Your task to perform on an android device: Go to display settings Image 0: 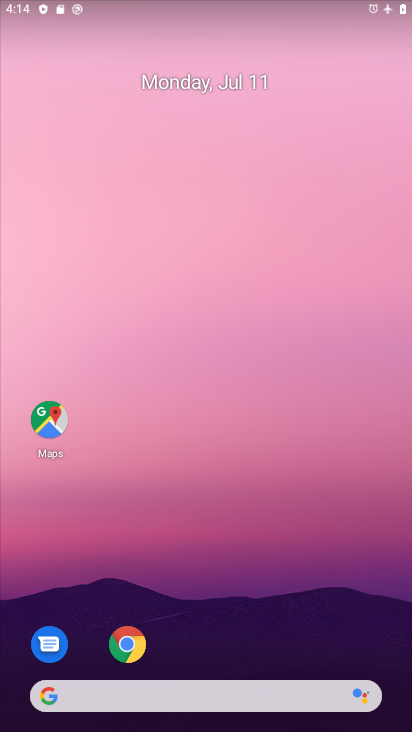
Step 0: drag from (293, 647) to (251, 28)
Your task to perform on an android device: Go to display settings Image 1: 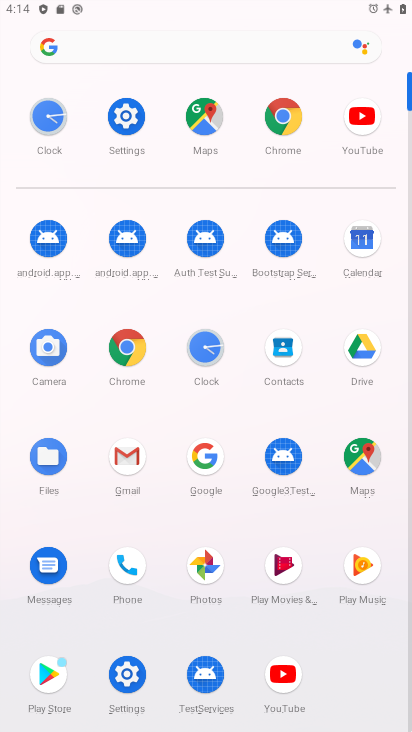
Step 1: click (141, 129)
Your task to perform on an android device: Go to display settings Image 2: 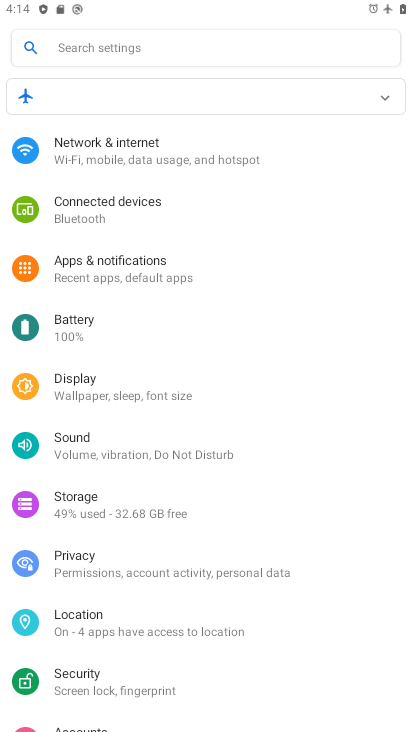
Step 2: click (119, 385)
Your task to perform on an android device: Go to display settings Image 3: 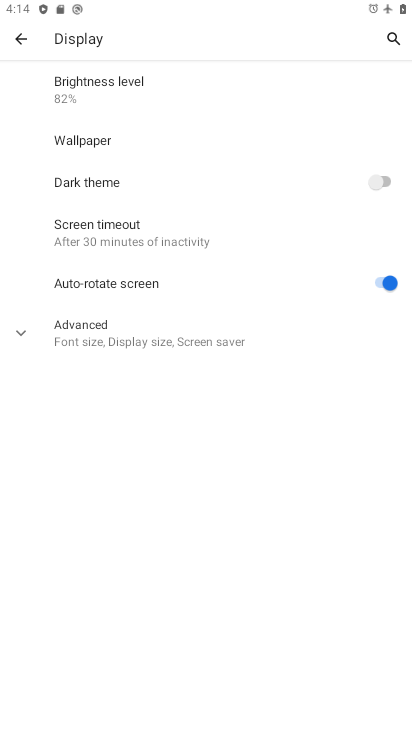
Step 3: task complete